Your task to perform on an android device: install app "Indeed Job Search" Image 0: 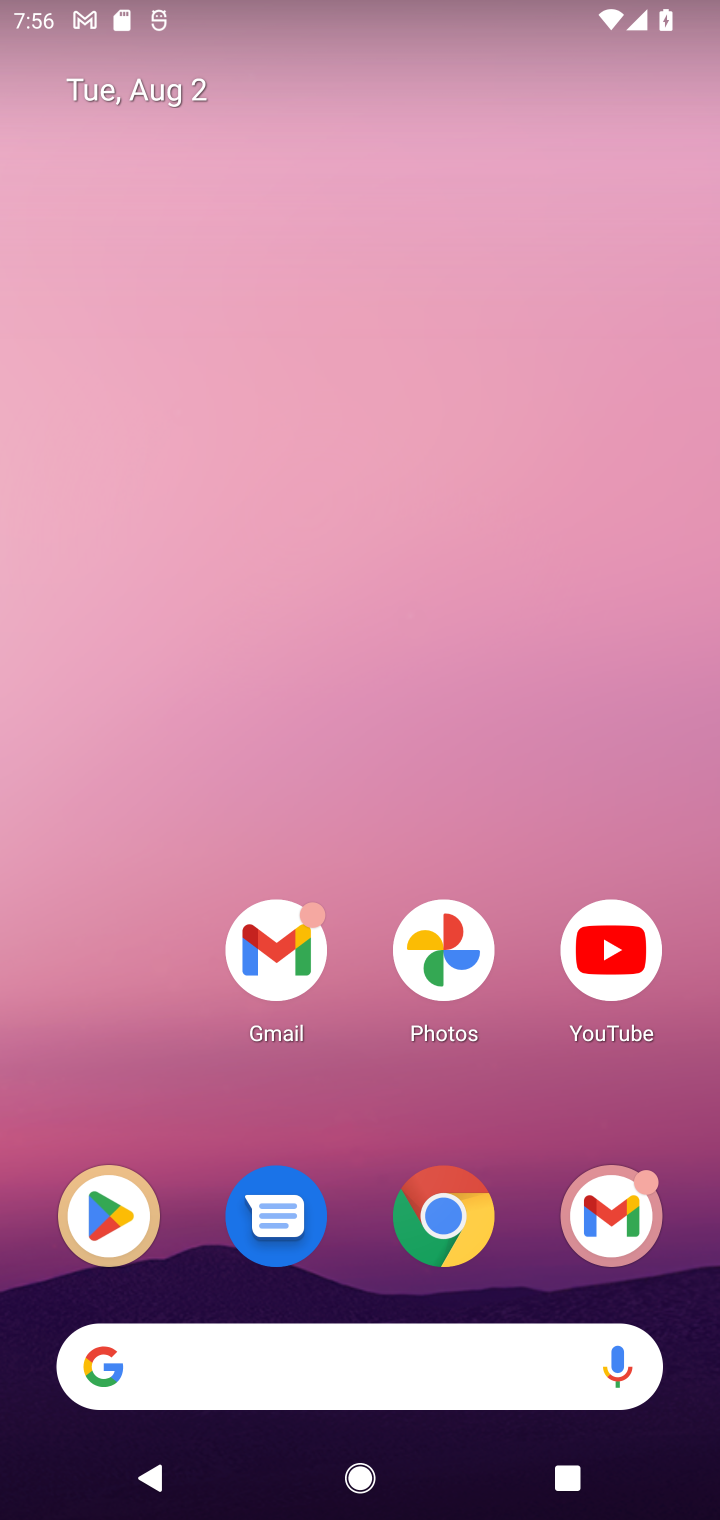
Step 0: press home button
Your task to perform on an android device: install app "Indeed Job Search" Image 1: 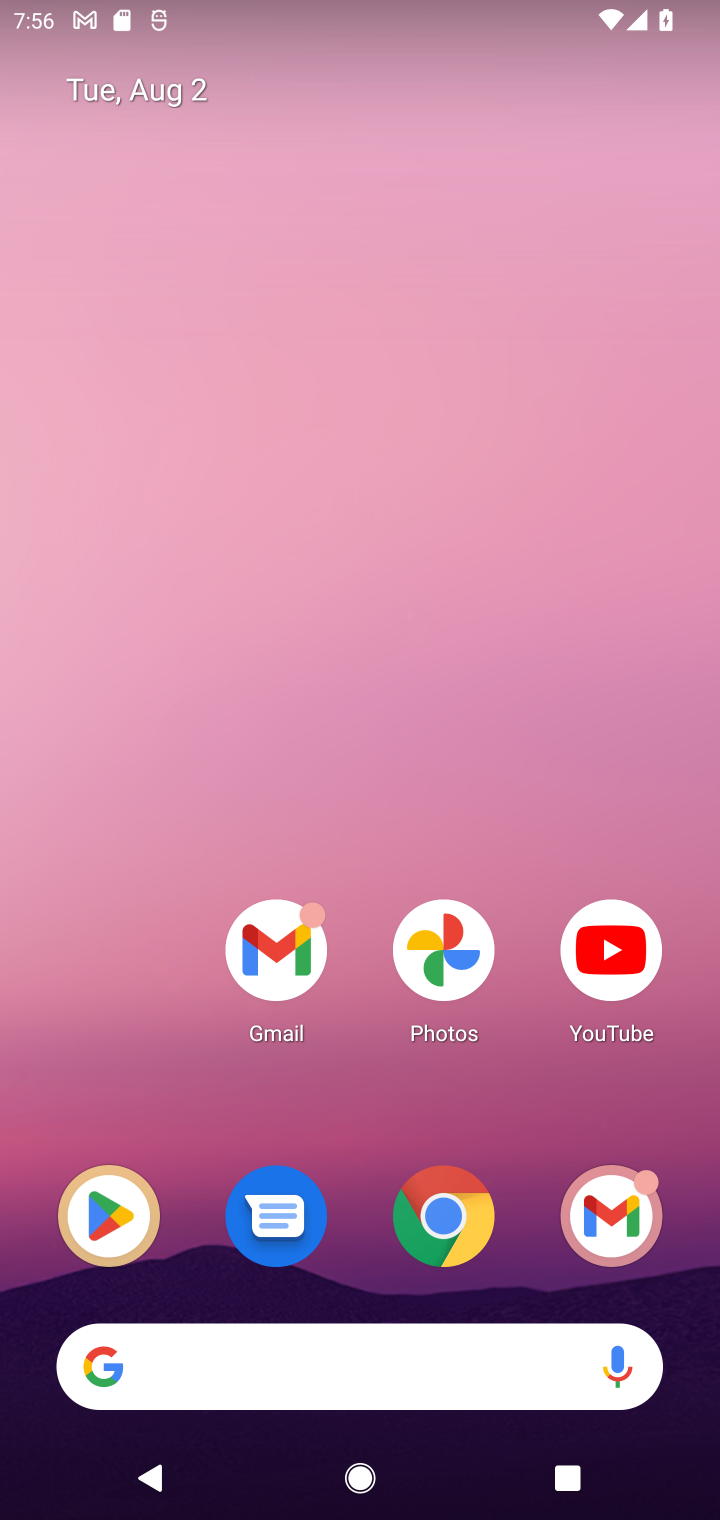
Step 1: click (96, 1214)
Your task to perform on an android device: install app "Indeed Job Search" Image 2: 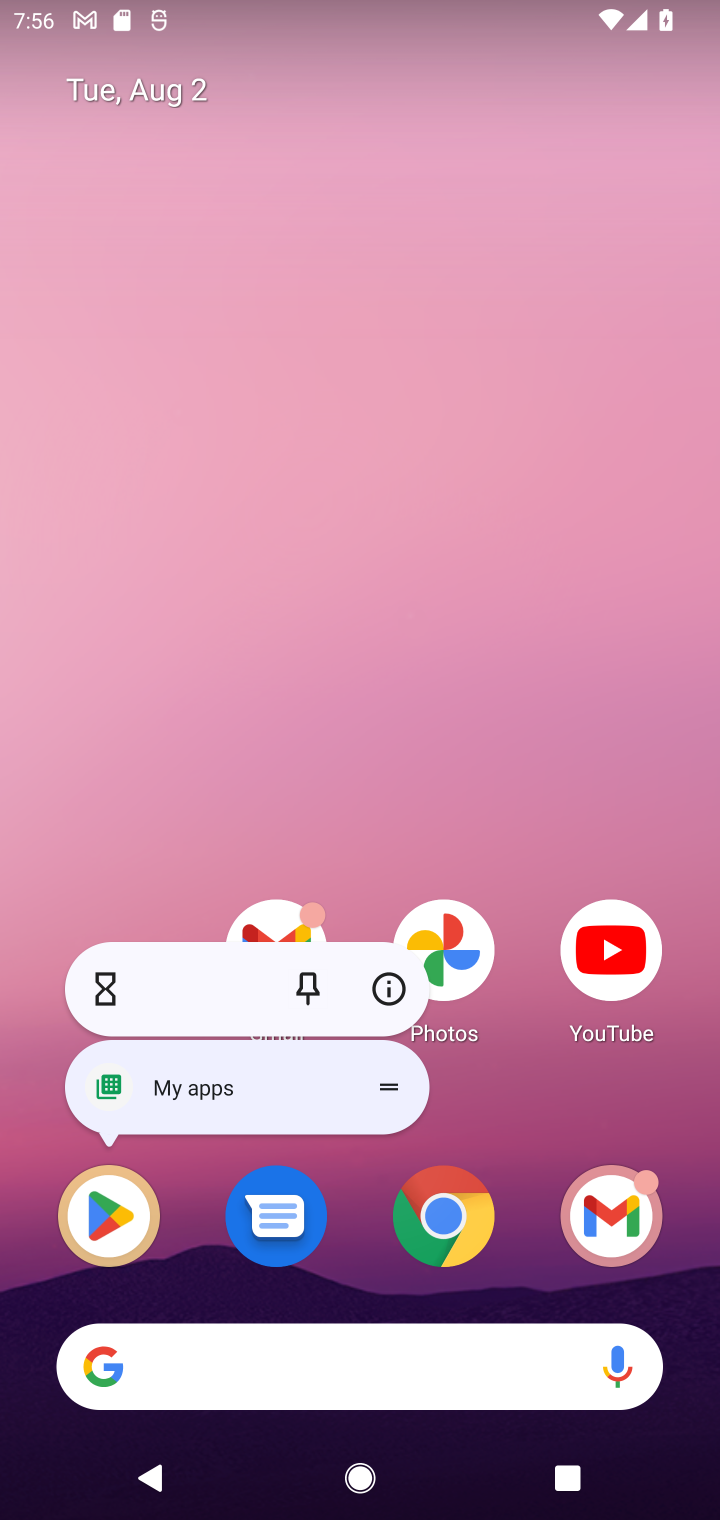
Step 2: click (115, 1210)
Your task to perform on an android device: install app "Indeed Job Search" Image 3: 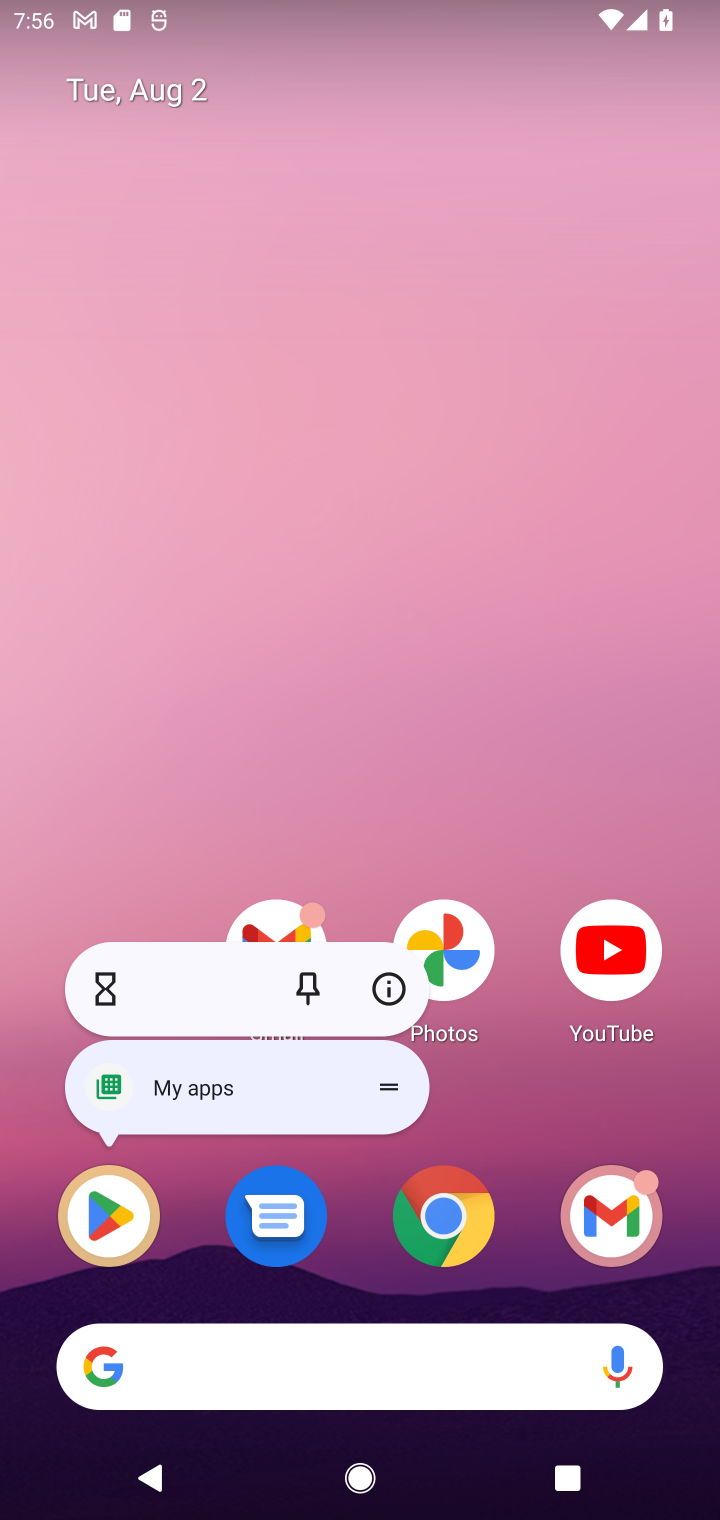
Step 3: click (115, 1210)
Your task to perform on an android device: install app "Indeed Job Search" Image 4: 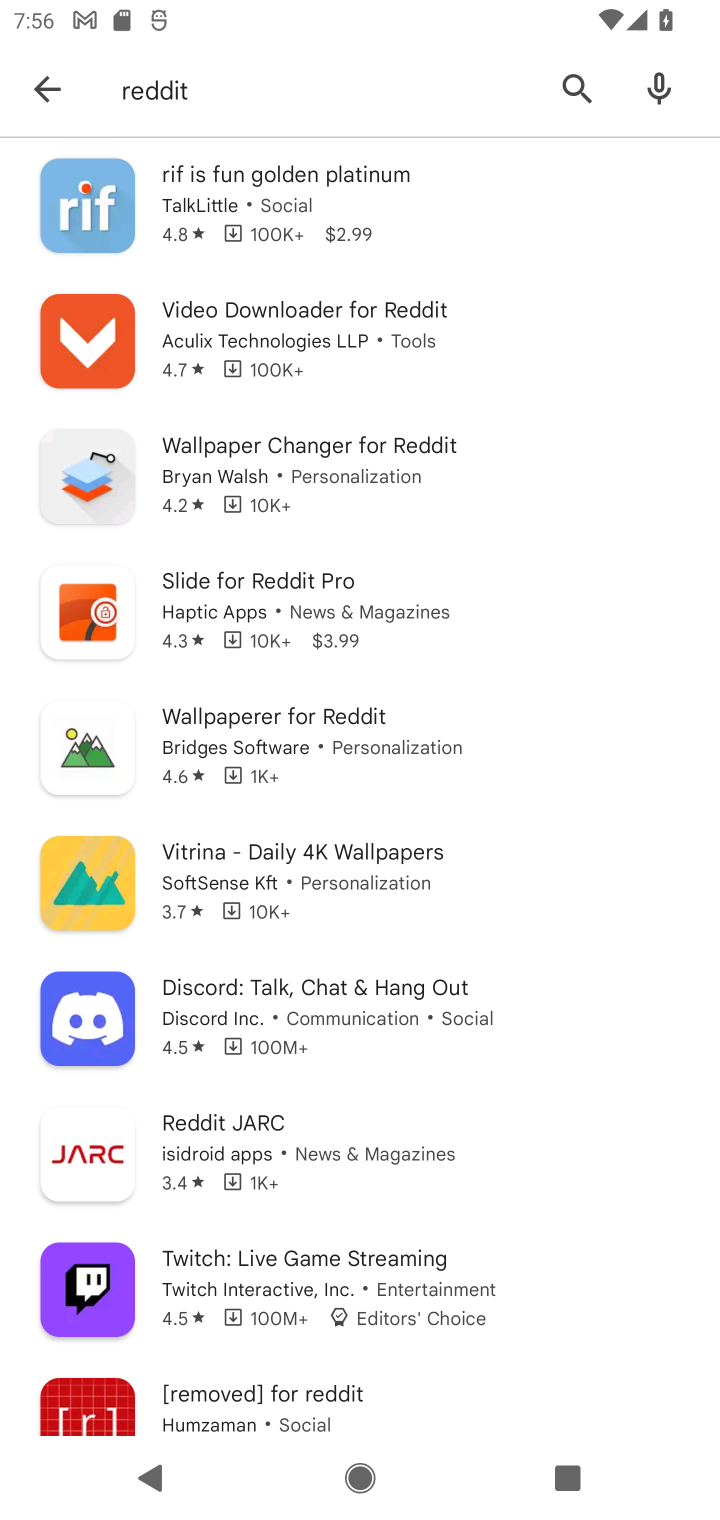
Step 4: click (573, 83)
Your task to perform on an android device: install app "Indeed Job Search" Image 5: 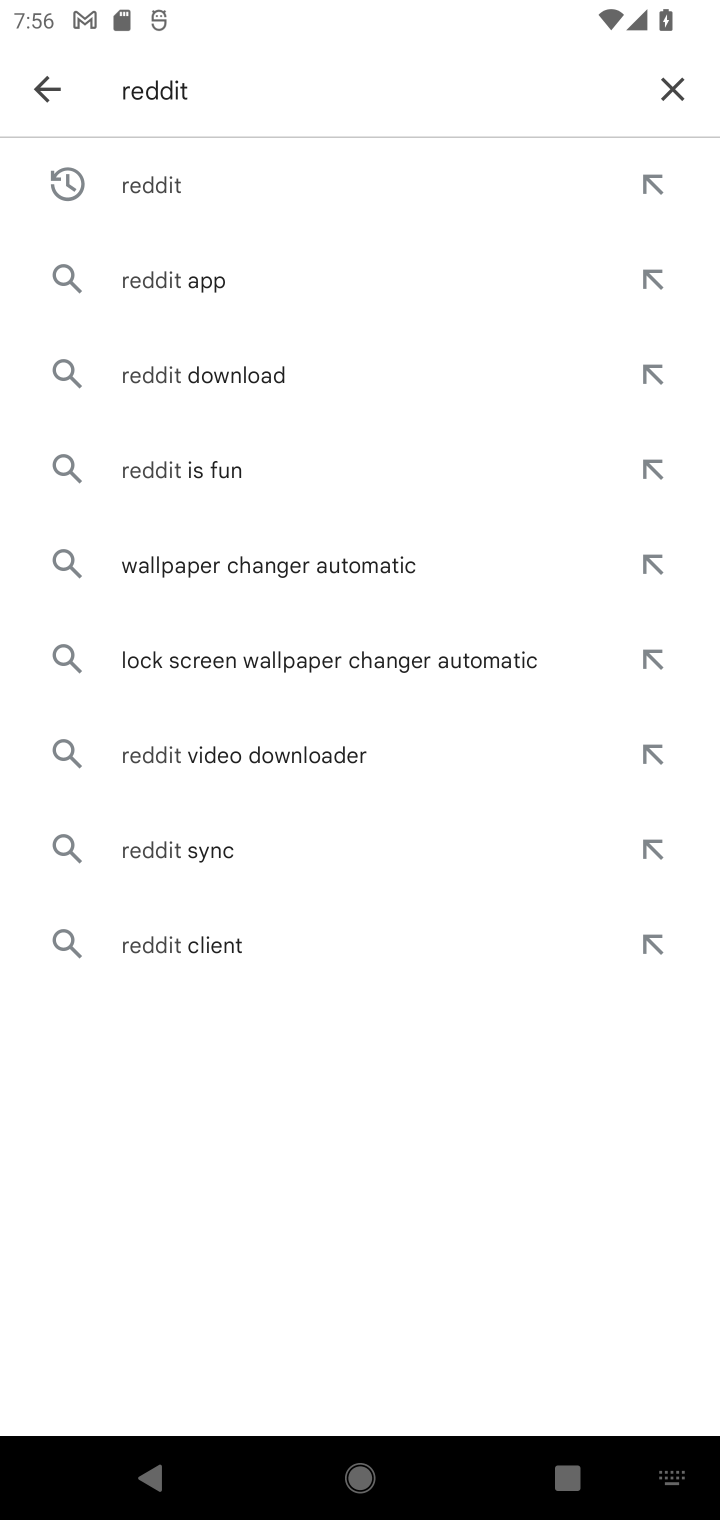
Step 5: click (674, 80)
Your task to perform on an android device: install app "Indeed Job Search" Image 6: 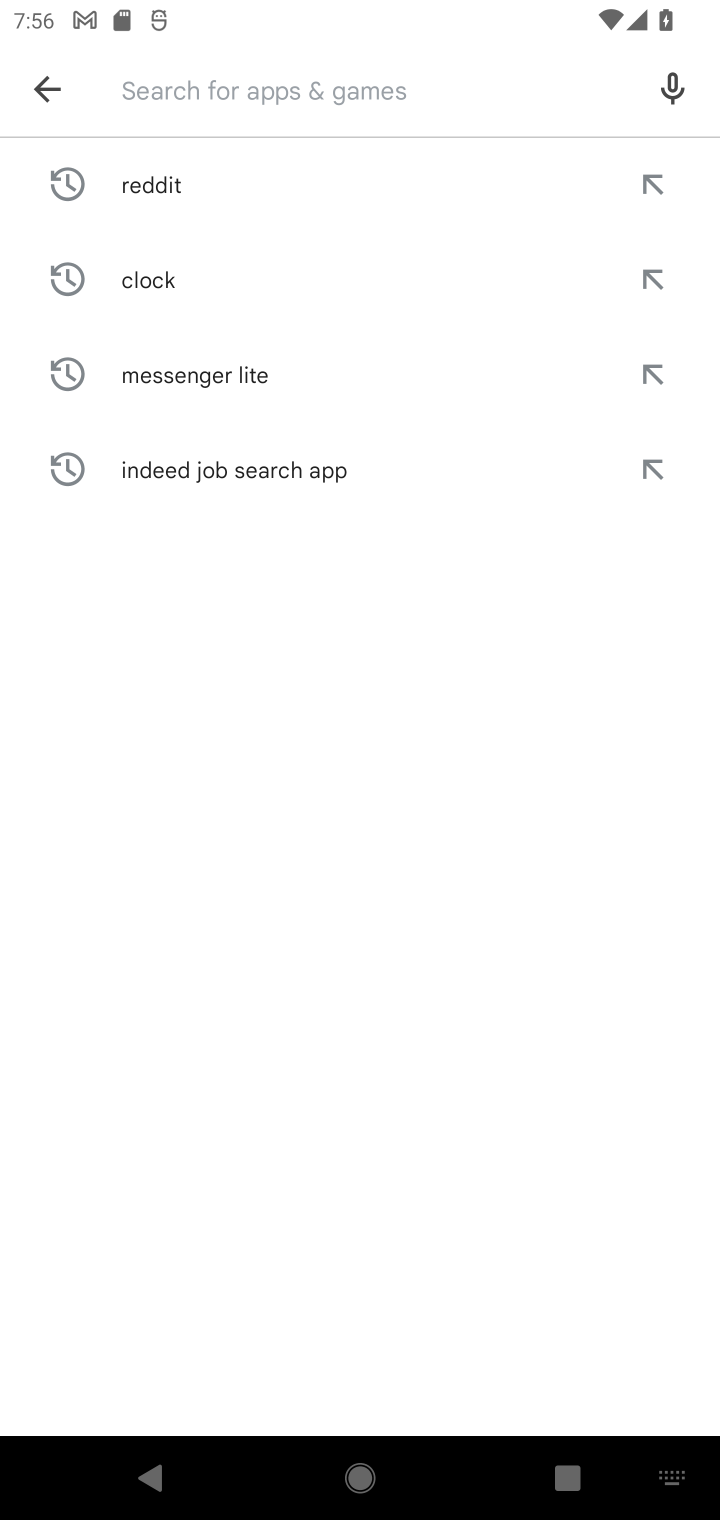
Step 6: type "Indeed Job Search"
Your task to perform on an android device: install app "Indeed Job Search" Image 7: 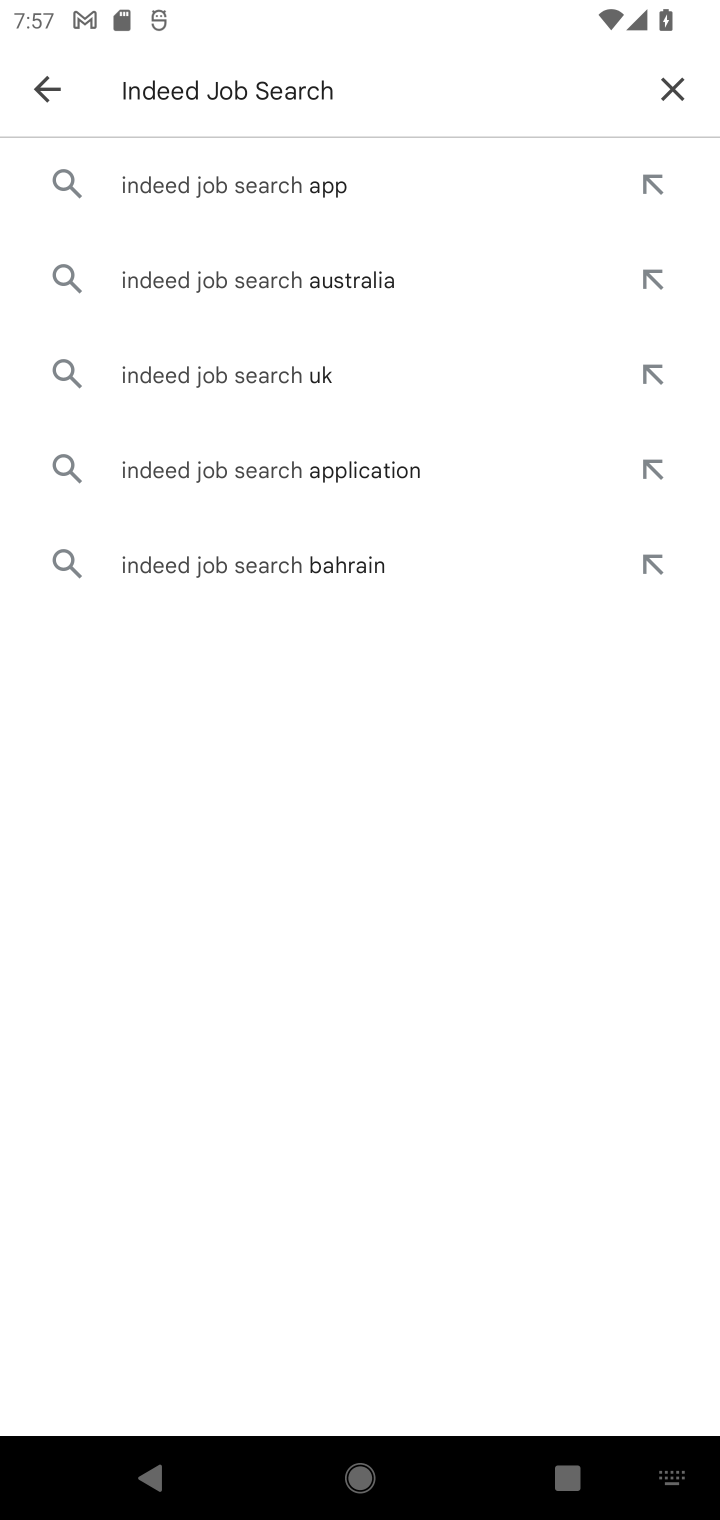
Step 7: click (284, 185)
Your task to perform on an android device: install app "Indeed Job Search" Image 8: 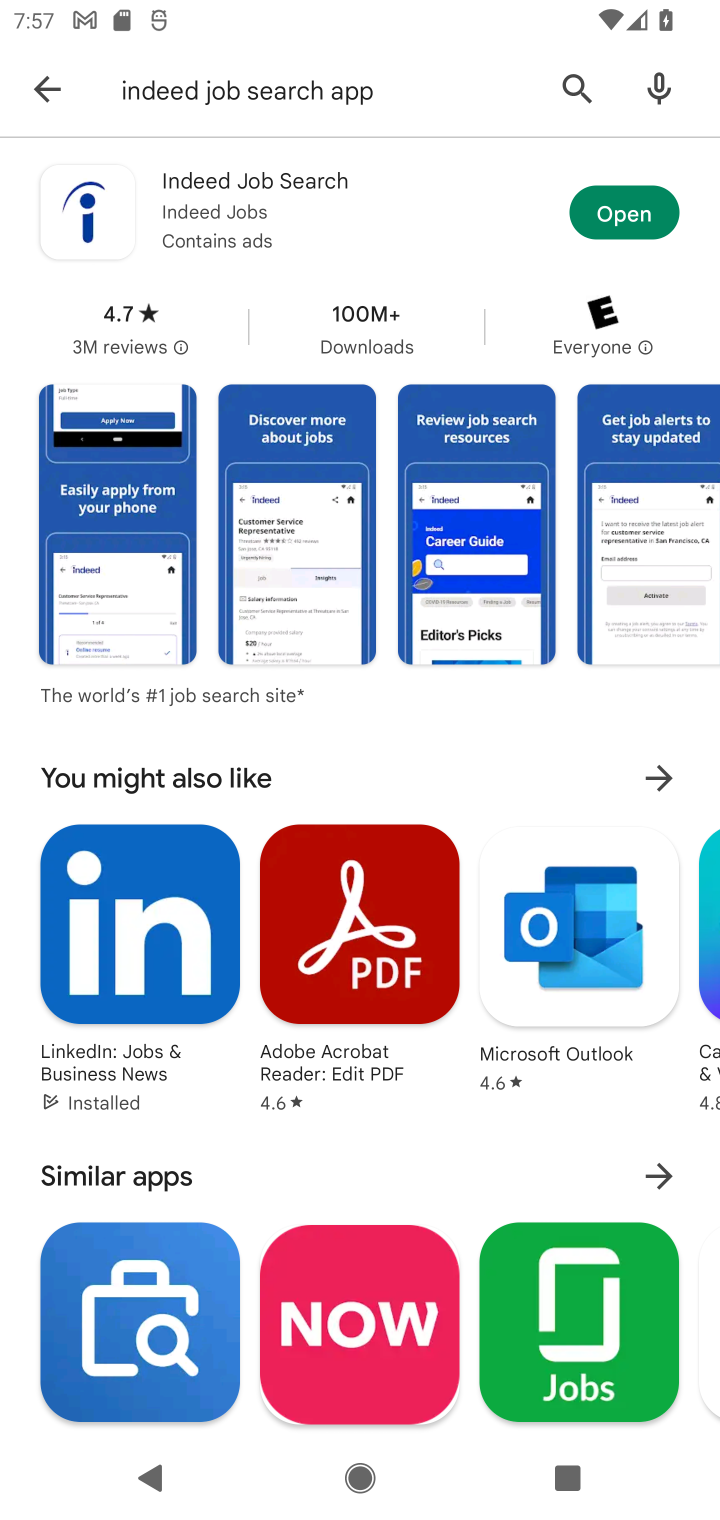
Step 8: task complete